Your task to perform on an android device: add a contact in the contacts app Image 0: 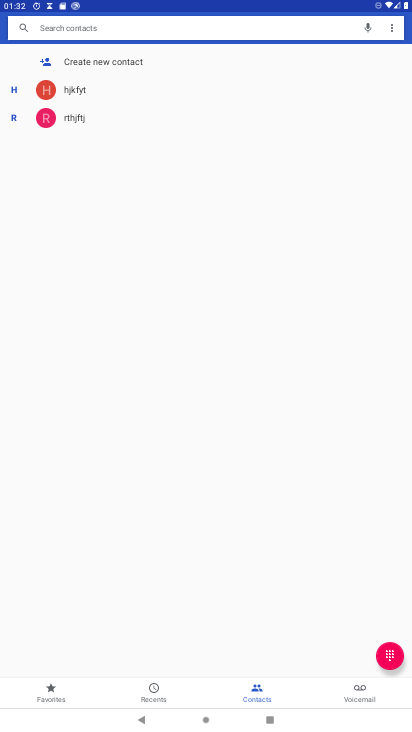
Step 0: press home button
Your task to perform on an android device: add a contact in the contacts app Image 1: 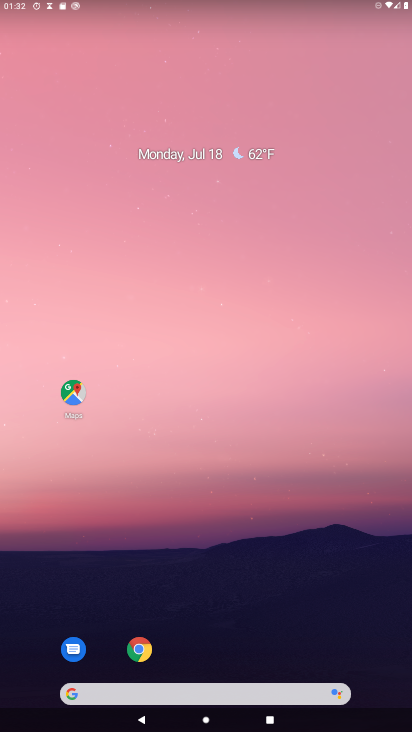
Step 1: drag from (46, 699) to (252, 296)
Your task to perform on an android device: add a contact in the contacts app Image 2: 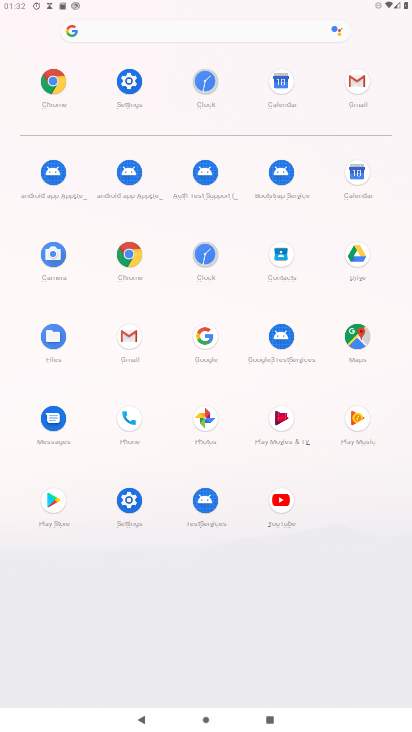
Step 2: click (280, 269)
Your task to perform on an android device: add a contact in the contacts app Image 3: 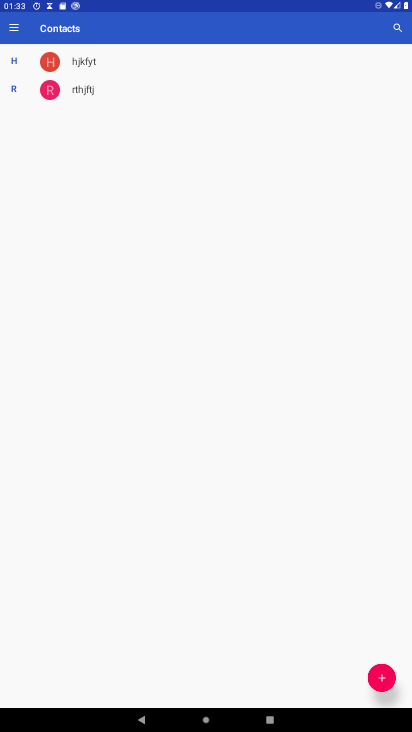
Step 3: click (381, 678)
Your task to perform on an android device: add a contact in the contacts app Image 4: 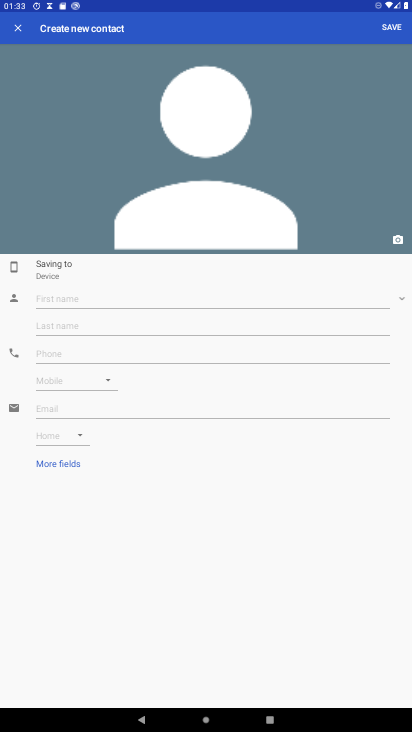
Step 4: click (66, 289)
Your task to perform on an android device: add a contact in the contacts app Image 5: 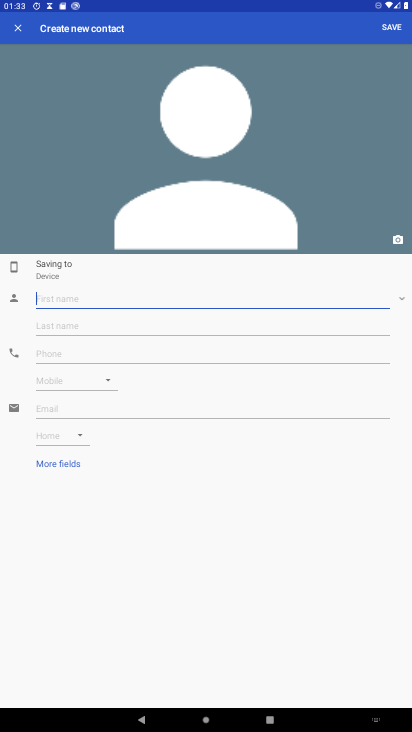
Step 5: type "rytujgkh"
Your task to perform on an android device: add a contact in the contacts app Image 6: 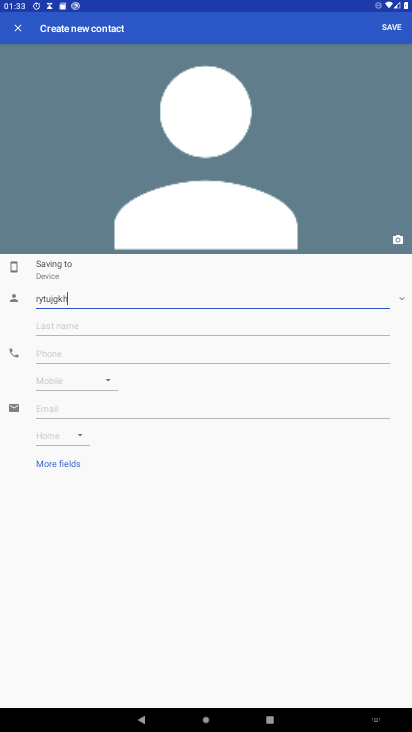
Step 6: type ""
Your task to perform on an android device: add a contact in the contacts app Image 7: 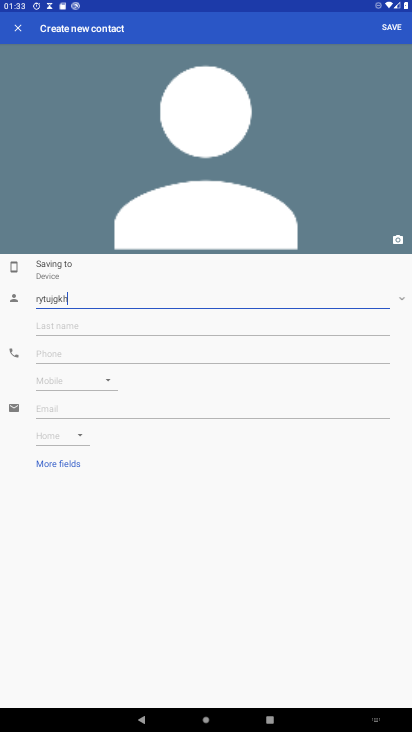
Step 7: click (395, 25)
Your task to perform on an android device: add a contact in the contacts app Image 8: 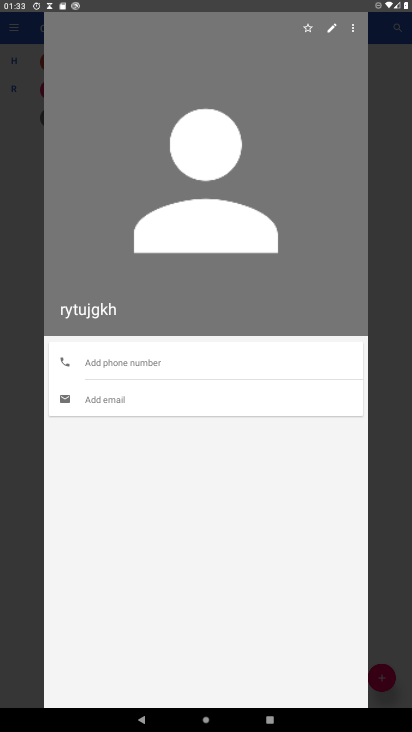
Step 8: task complete